Your task to perform on an android device: turn on translation in the chrome app Image 0: 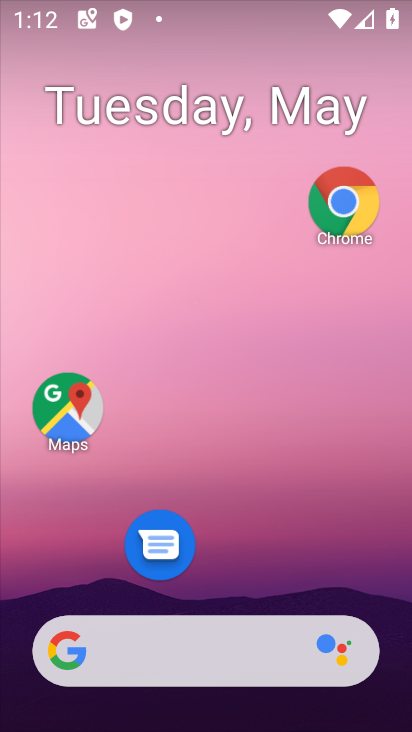
Step 0: click (346, 202)
Your task to perform on an android device: turn on translation in the chrome app Image 1: 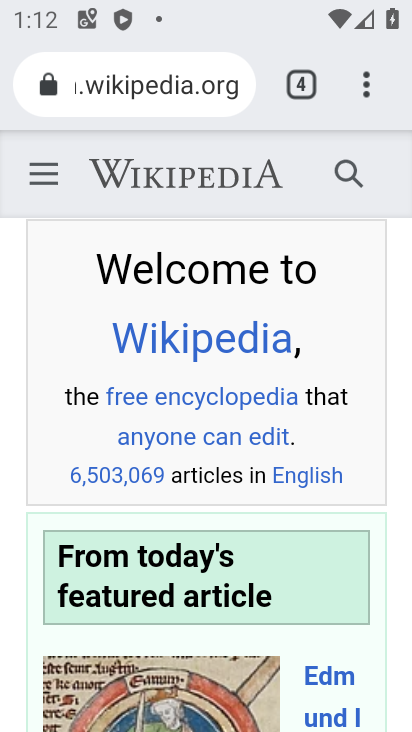
Step 1: click (382, 91)
Your task to perform on an android device: turn on translation in the chrome app Image 2: 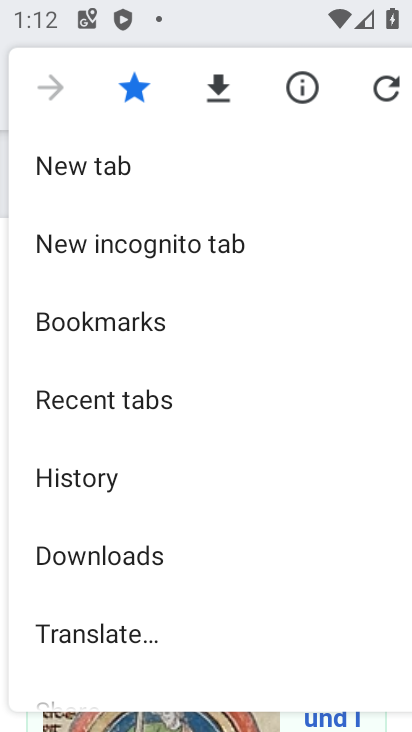
Step 2: drag from (66, 673) to (213, 151)
Your task to perform on an android device: turn on translation in the chrome app Image 3: 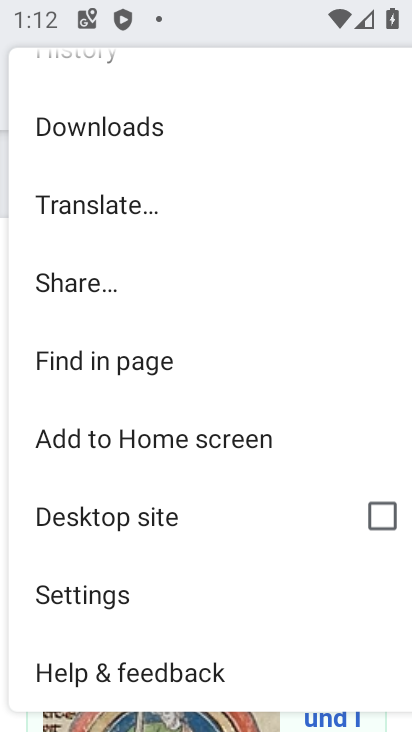
Step 3: click (157, 583)
Your task to perform on an android device: turn on translation in the chrome app Image 4: 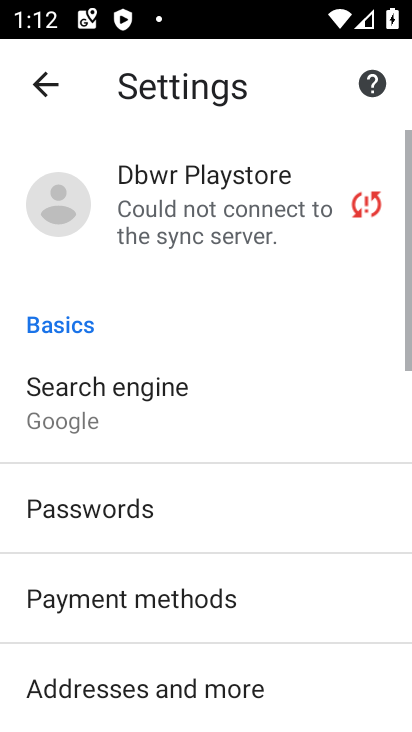
Step 4: drag from (157, 583) to (196, 235)
Your task to perform on an android device: turn on translation in the chrome app Image 5: 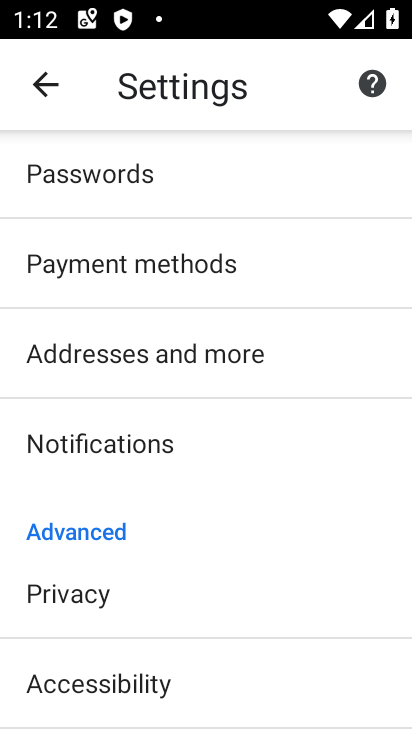
Step 5: drag from (109, 632) to (140, 120)
Your task to perform on an android device: turn on translation in the chrome app Image 6: 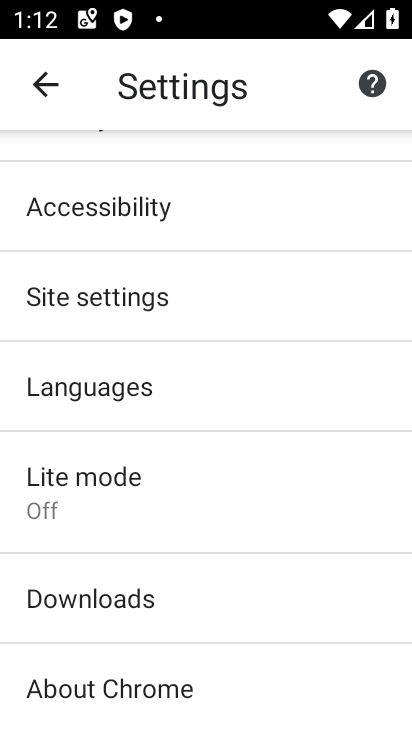
Step 6: click (143, 385)
Your task to perform on an android device: turn on translation in the chrome app Image 7: 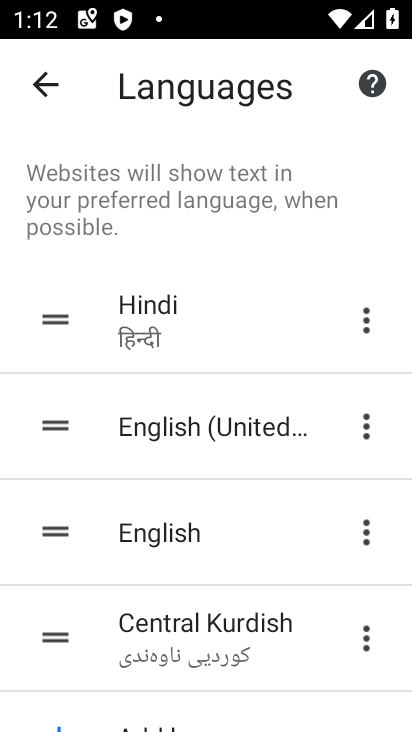
Step 7: task complete